Your task to perform on an android device: turn on notifications settings in the gmail app Image 0: 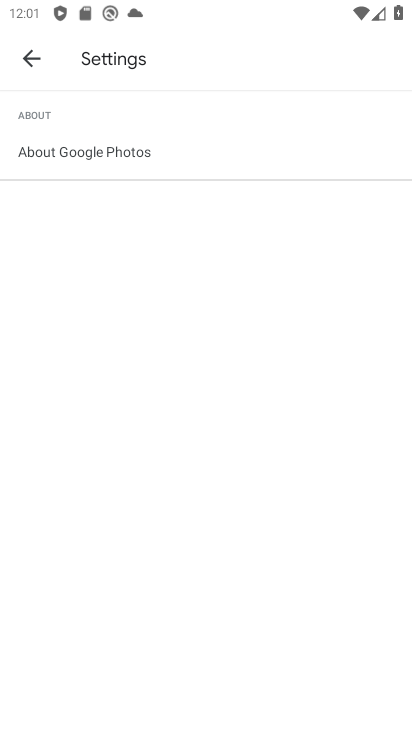
Step 0: press home button
Your task to perform on an android device: turn on notifications settings in the gmail app Image 1: 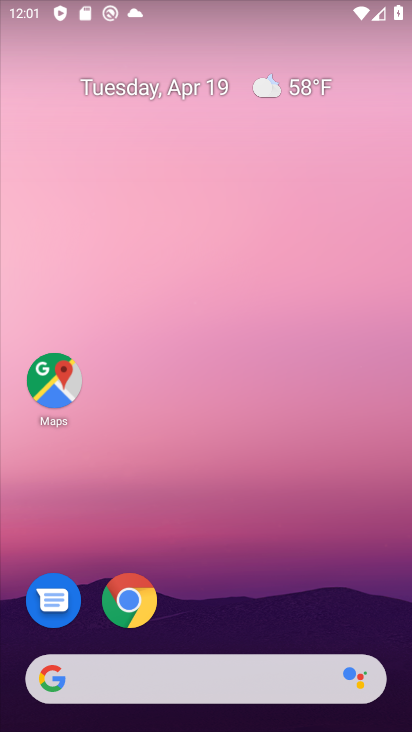
Step 1: drag from (237, 693) to (199, 358)
Your task to perform on an android device: turn on notifications settings in the gmail app Image 2: 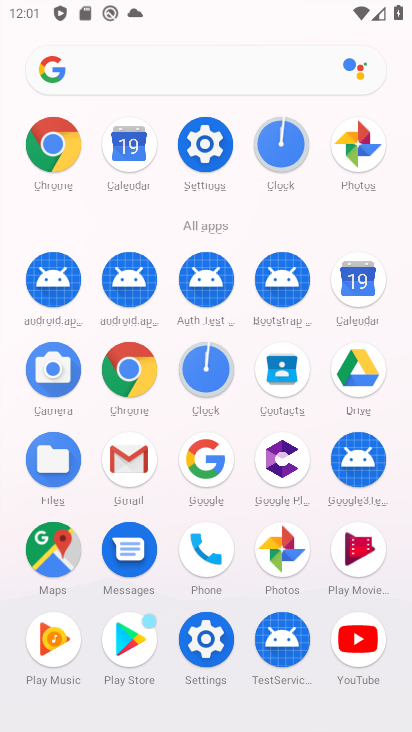
Step 2: click (116, 466)
Your task to perform on an android device: turn on notifications settings in the gmail app Image 3: 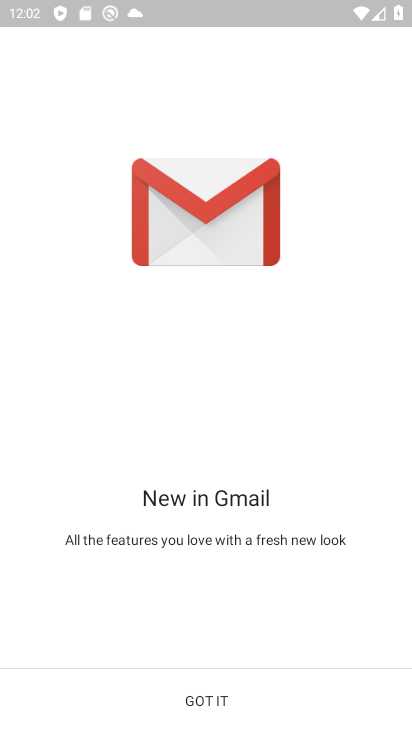
Step 3: click (228, 687)
Your task to perform on an android device: turn on notifications settings in the gmail app Image 4: 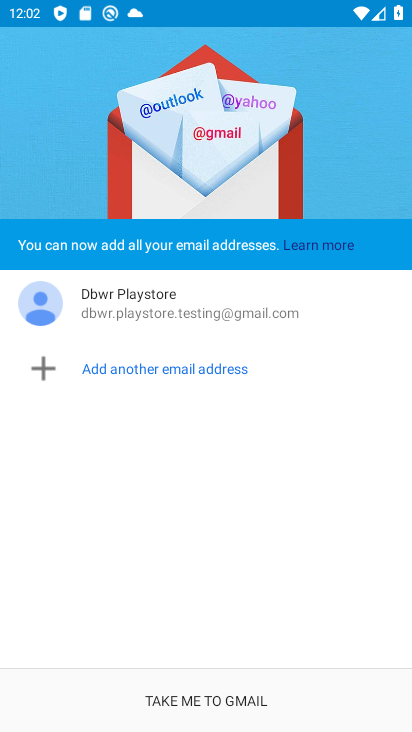
Step 4: click (187, 694)
Your task to perform on an android device: turn on notifications settings in the gmail app Image 5: 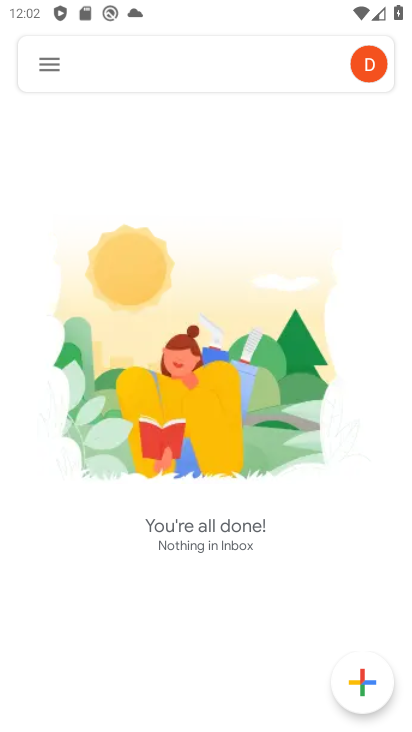
Step 5: click (45, 67)
Your task to perform on an android device: turn on notifications settings in the gmail app Image 6: 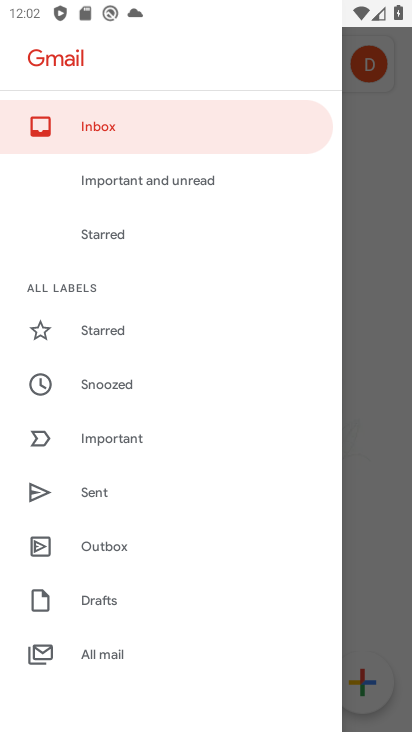
Step 6: drag from (129, 491) to (256, 274)
Your task to perform on an android device: turn on notifications settings in the gmail app Image 7: 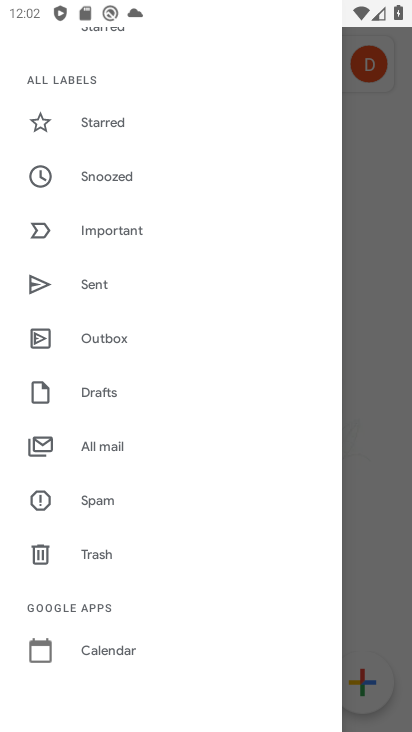
Step 7: drag from (183, 541) to (231, 389)
Your task to perform on an android device: turn on notifications settings in the gmail app Image 8: 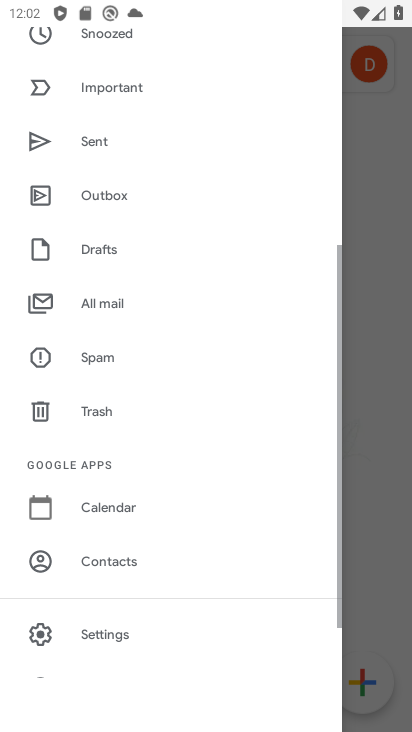
Step 8: click (105, 631)
Your task to perform on an android device: turn on notifications settings in the gmail app Image 9: 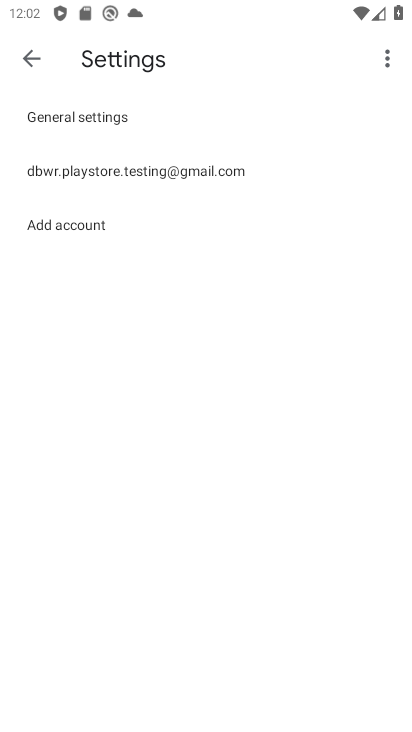
Step 9: click (157, 178)
Your task to perform on an android device: turn on notifications settings in the gmail app Image 10: 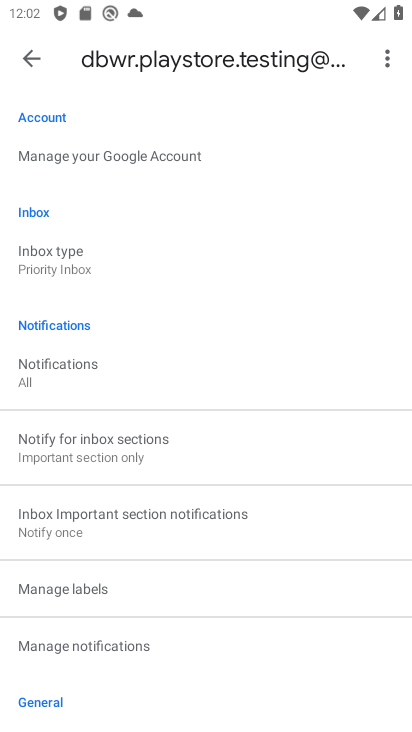
Step 10: click (50, 376)
Your task to perform on an android device: turn on notifications settings in the gmail app Image 11: 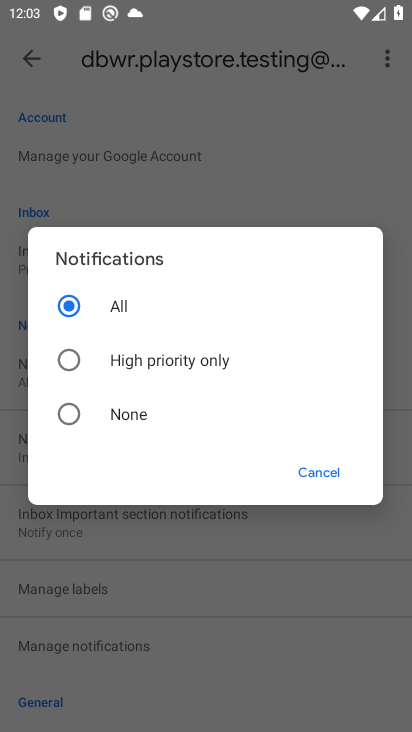
Step 11: task complete